Your task to perform on an android device: add a contact Image 0: 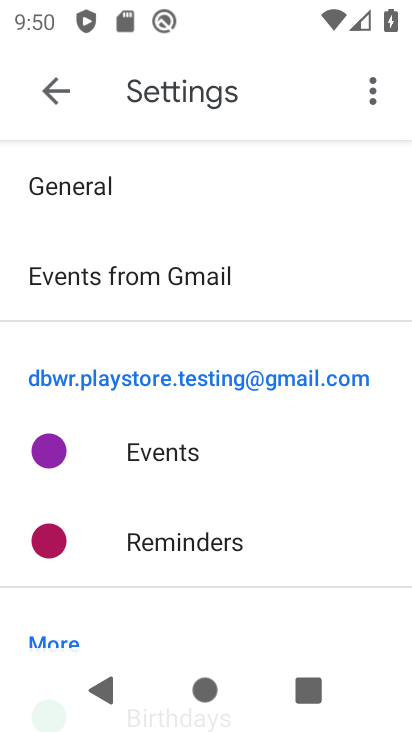
Step 0: press home button
Your task to perform on an android device: add a contact Image 1: 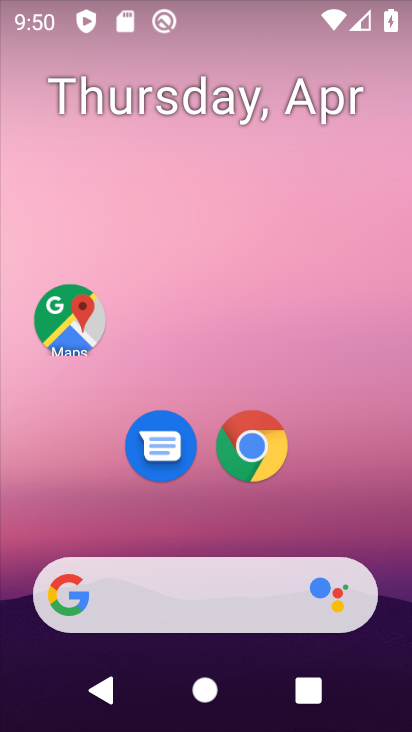
Step 1: drag from (208, 523) to (225, 30)
Your task to perform on an android device: add a contact Image 2: 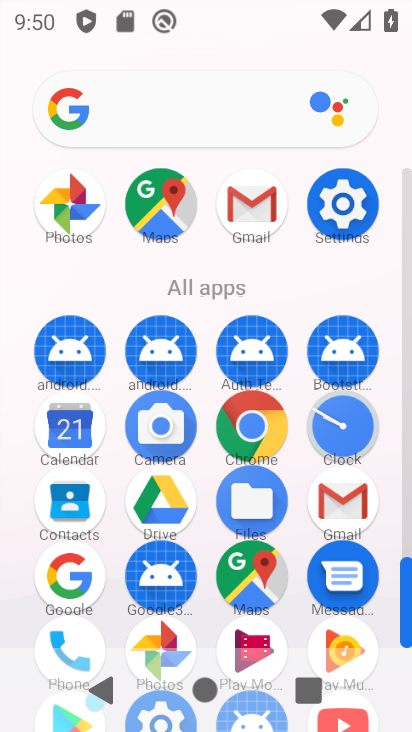
Step 2: click (73, 505)
Your task to perform on an android device: add a contact Image 3: 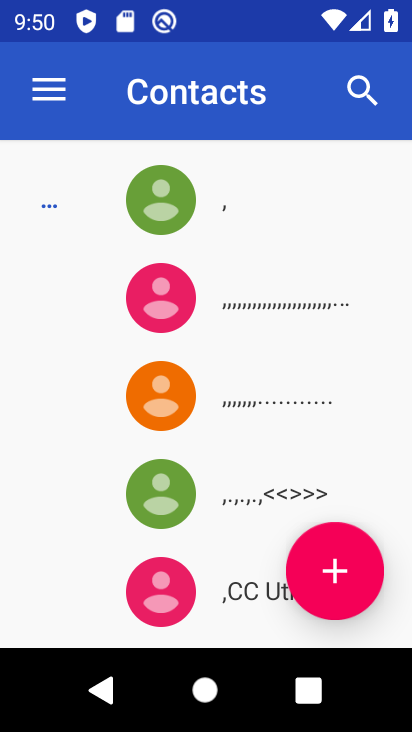
Step 3: click (332, 588)
Your task to perform on an android device: add a contact Image 4: 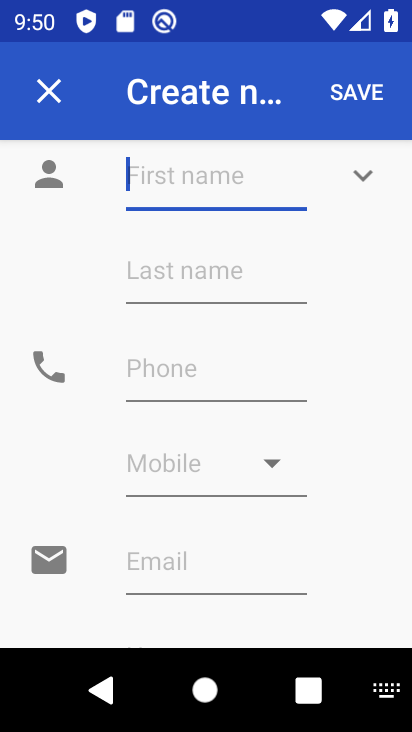
Step 4: type "fddsd"
Your task to perform on an android device: add a contact Image 5: 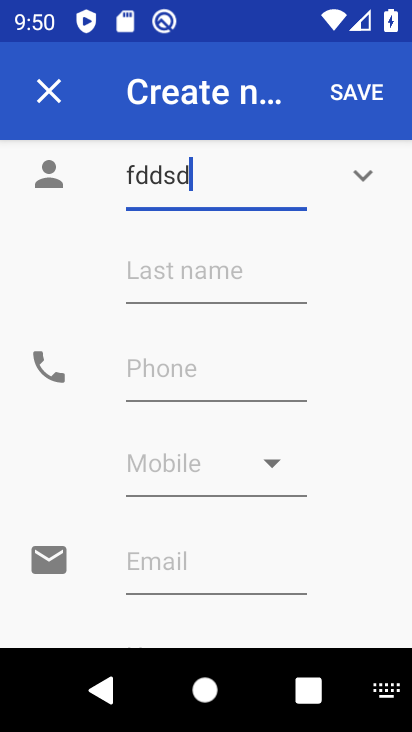
Step 5: type ""
Your task to perform on an android device: add a contact Image 6: 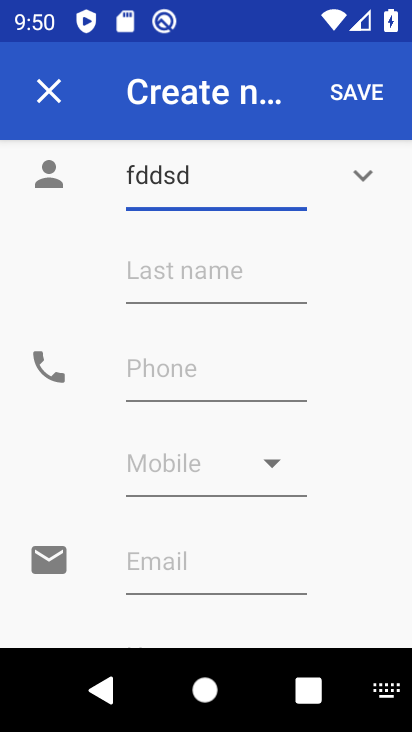
Step 6: click (221, 273)
Your task to perform on an android device: add a contact Image 7: 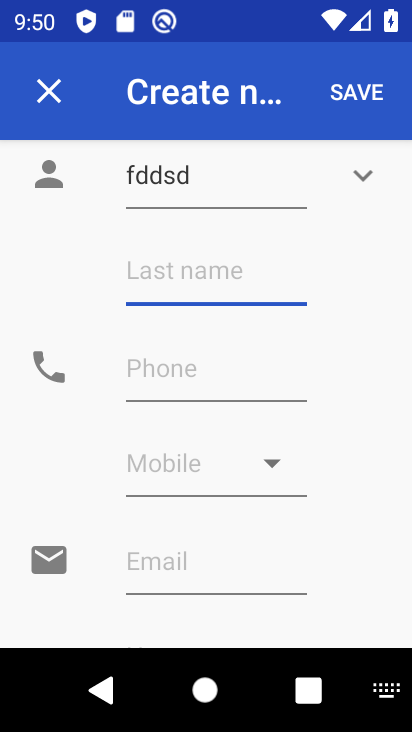
Step 7: type "feffded"
Your task to perform on an android device: add a contact Image 8: 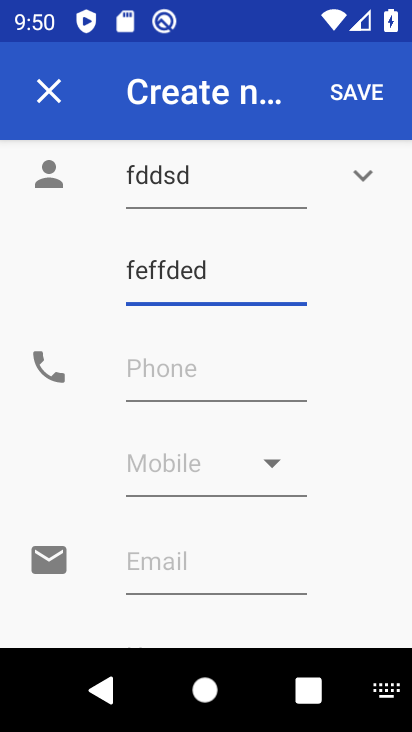
Step 8: click (210, 387)
Your task to perform on an android device: add a contact Image 9: 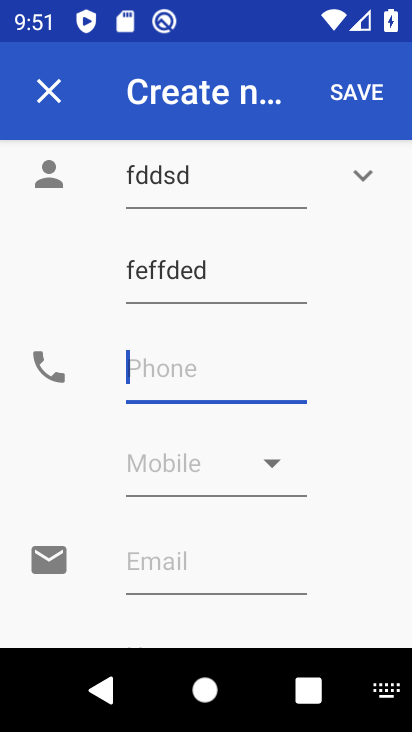
Step 9: type "435234523"
Your task to perform on an android device: add a contact Image 10: 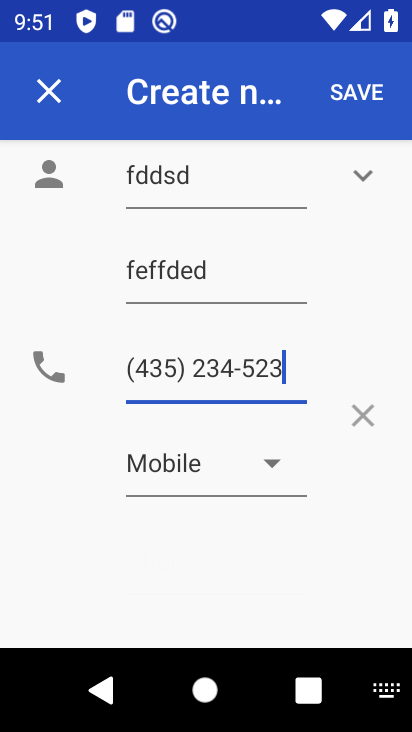
Step 10: type ""
Your task to perform on an android device: add a contact Image 11: 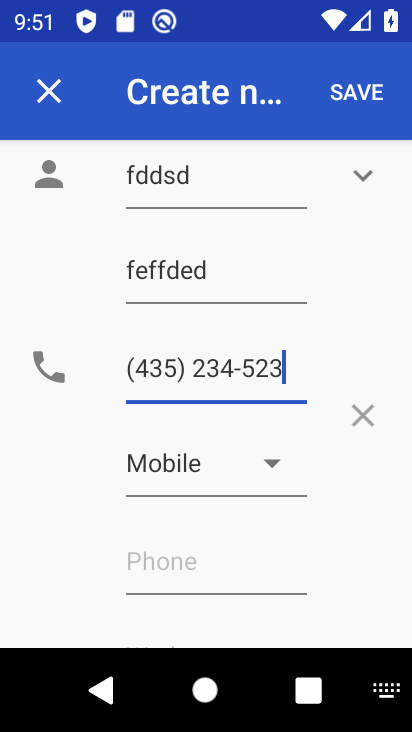
Step 11: click (348, 81)
Your task to perform on an android device: add a contact Image 12: 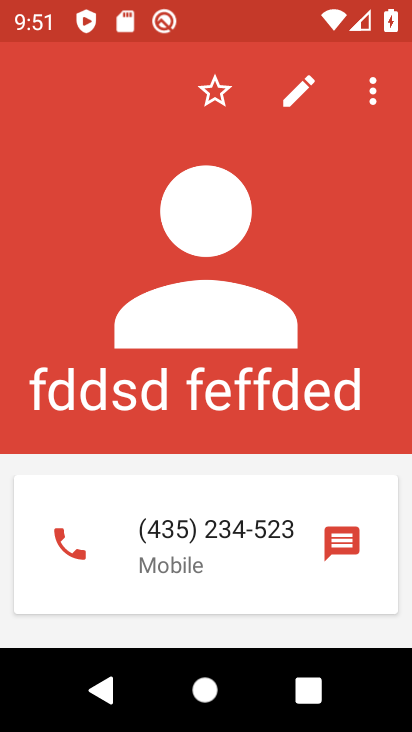
Step 12: task complete